Your task to perform on an android device: Open maps Image 0: 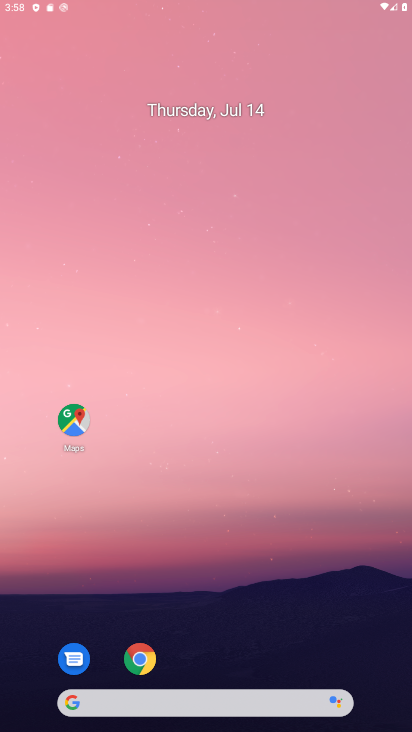
Step 0: press back button
Your task to perform on an android device: Open maps Image 1: 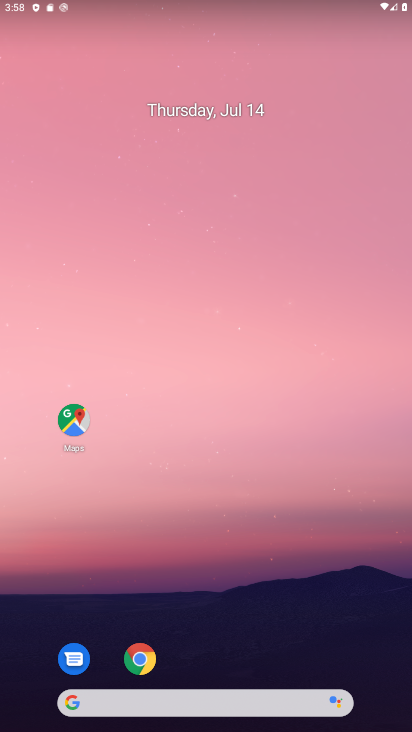
Step 1: drag from (260, 565) to (221, 108)
Your task to perform on an android device: Open maps Image 2: 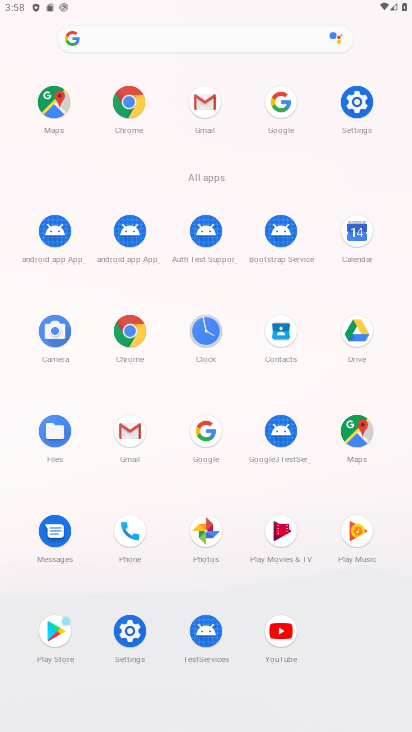
Step 2: click (354, 430)
Your task to perform on an android device: Open maps Image 3: 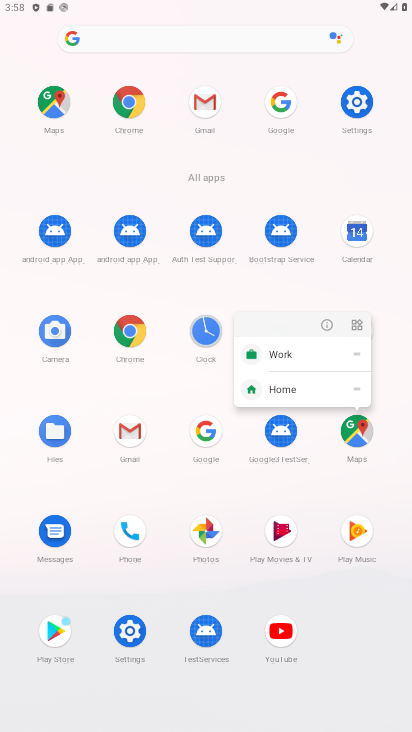
Step 3: click (355, 429)
Your task to perform on an android device: Open maps Image 4: 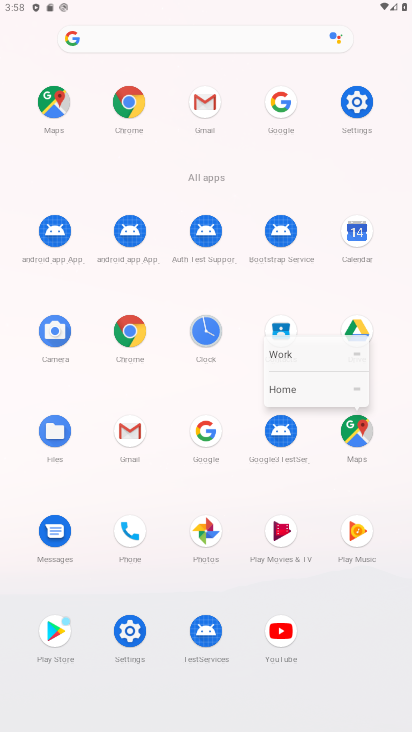
Step 4: click (357, 431)
Your task to perform on an android device: Open maps Image 5: 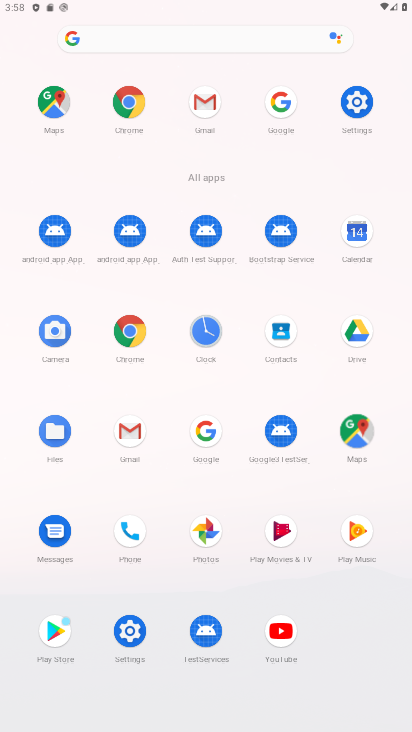
Step 5: click (357, 431)
Your task to perform on an android device: Open maps Image 6: 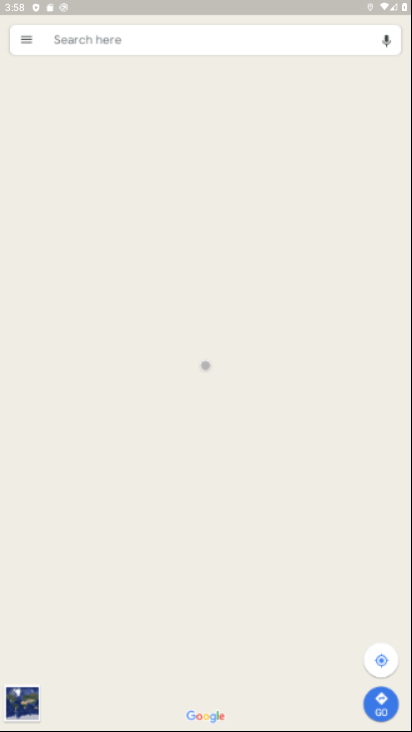
Step 6: click (358, 431)
Your task to perform on an android device: Open maps Image 7: 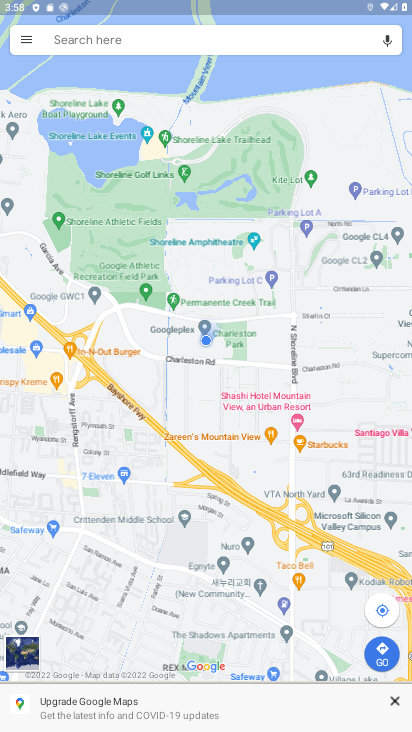
Step 7: task complete